Your task to perform on an android device: Search for the best 4K TV Image 0: 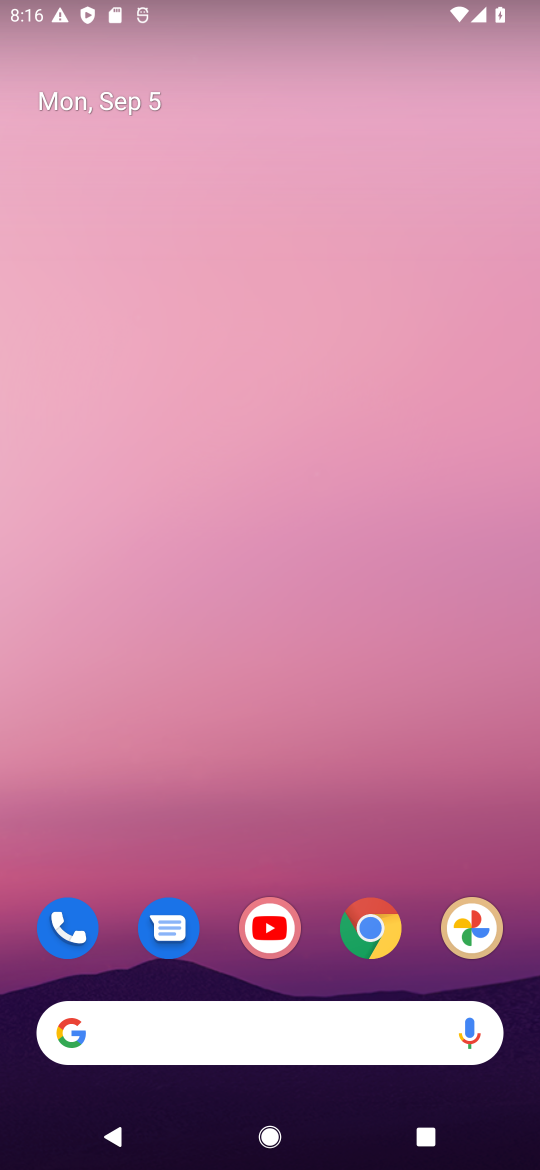
Step 0: click (365, 945)
Your task to perform on an android device: Search for the best 4K TV Image 1: 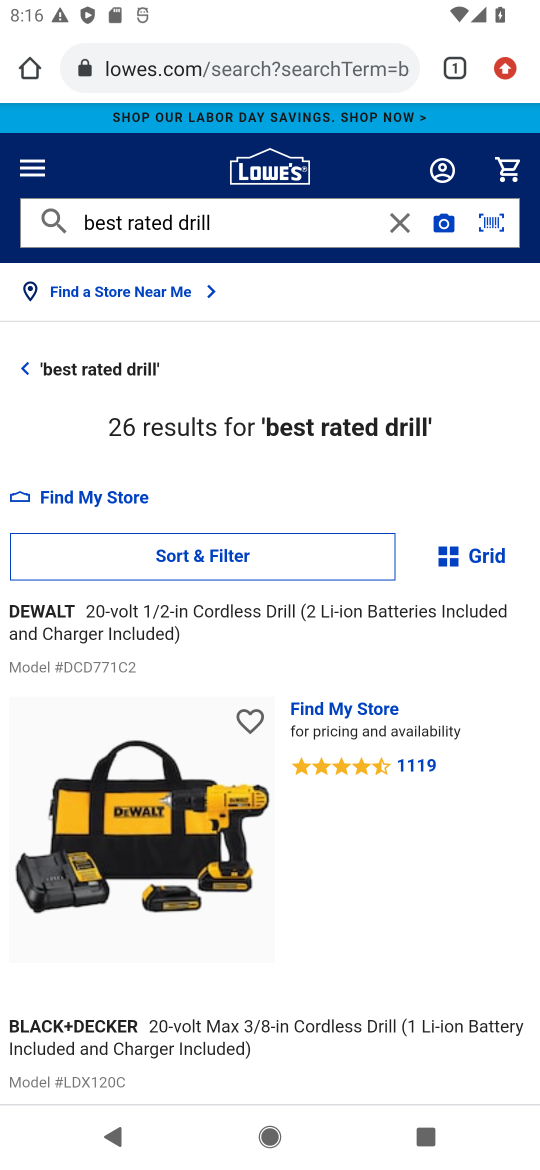
Step 1: click (324, 63)
Your task to perform on an android device: Search for the best 4K TV Image 2: 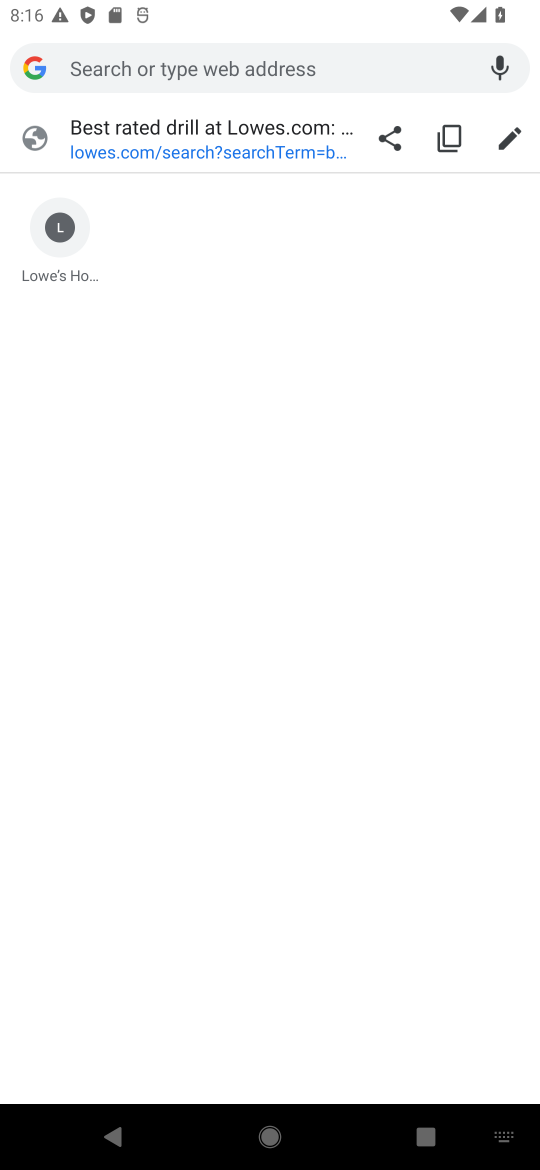
Step 2: type "best 4k tv"
Your task to perform on an android device: Search for the best 4K TV Image 3: 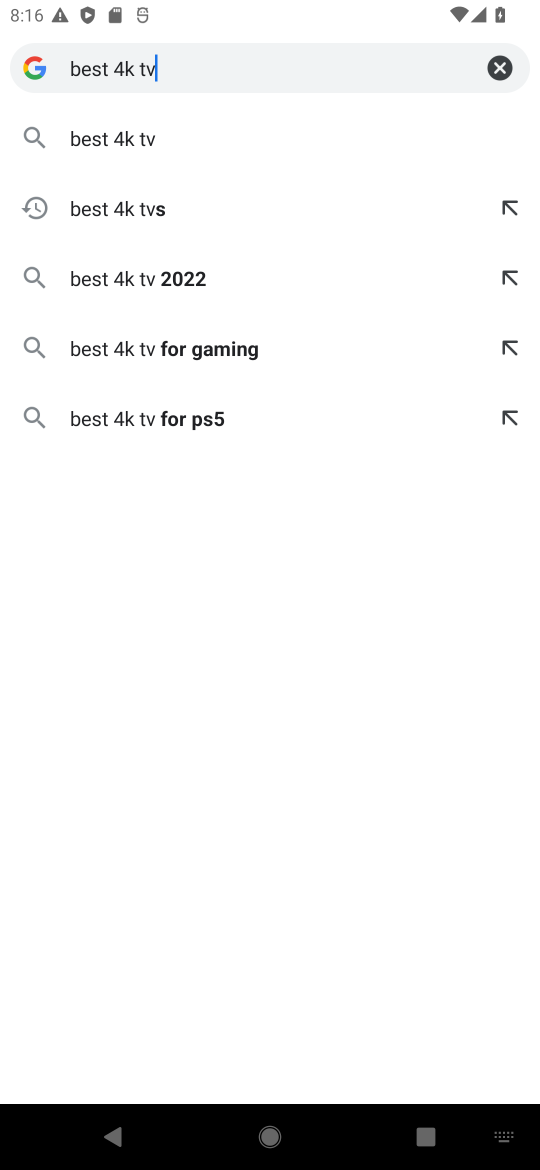
Step 3: click (130, 142)
Your task to perform on an android device: Search for the best 4K TV Image 4: 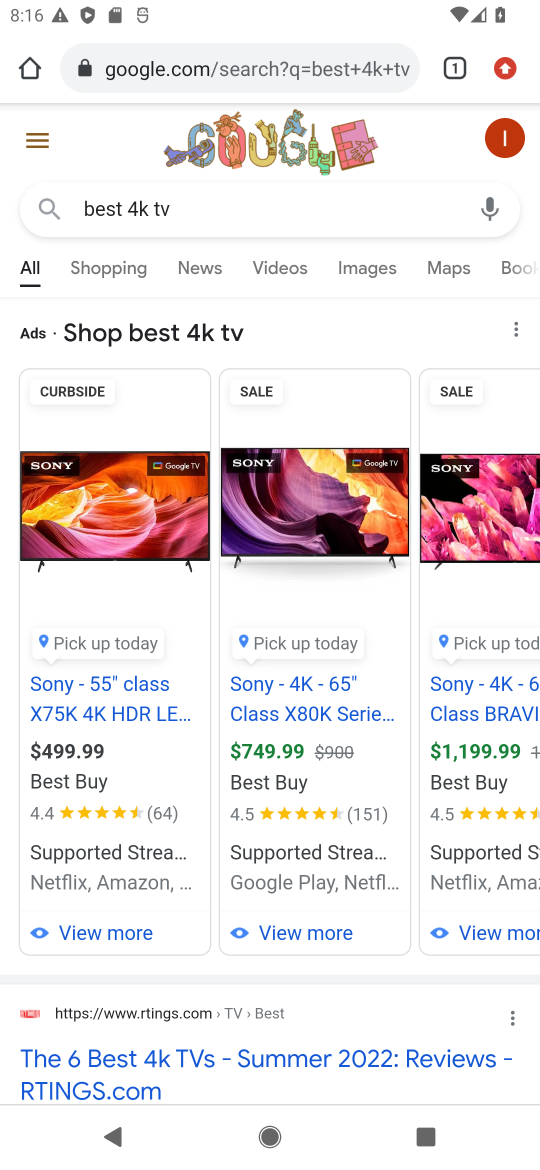
Step 4: click (121, 1067)
Your task to perform on an android device: Search for the best 4K TV Image 5: 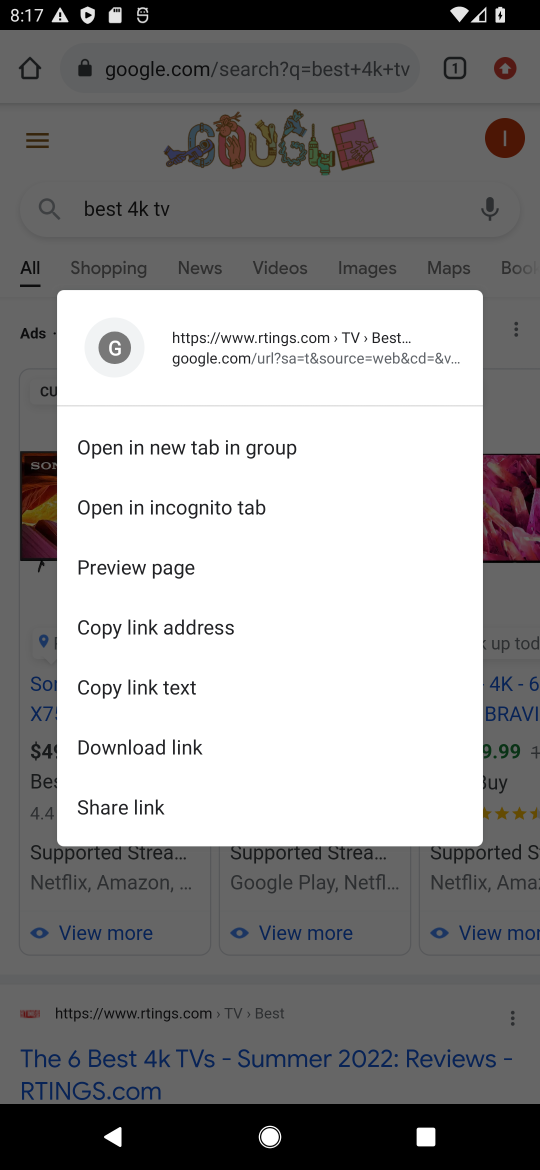
Step 5: click (514, 225)
Your task to perform on an android device: Search for the best 4K TV Image 6: 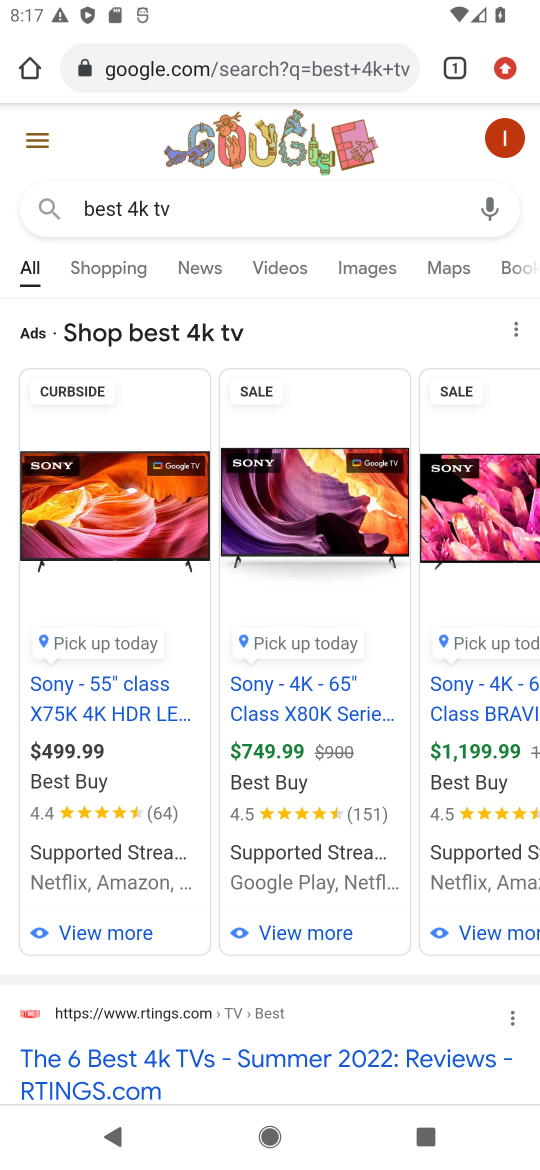
Step 6: click (184, 1065)
Your task to perform on an android device: Search for the best 4K TV Image 7: 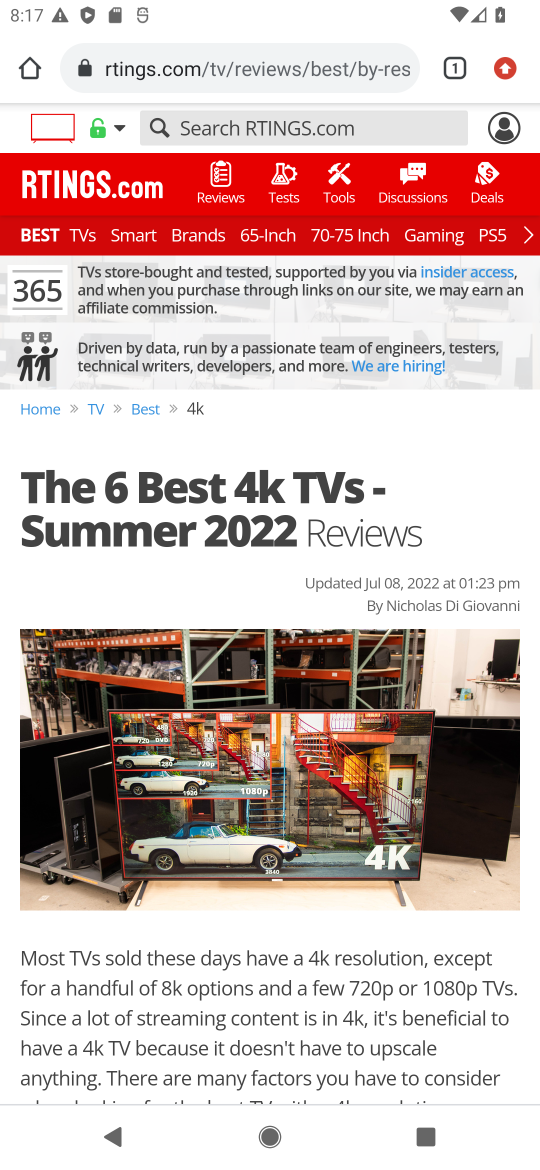
Step 7: task complete